Your task to perform on an android device: Go to display settings Image 0: 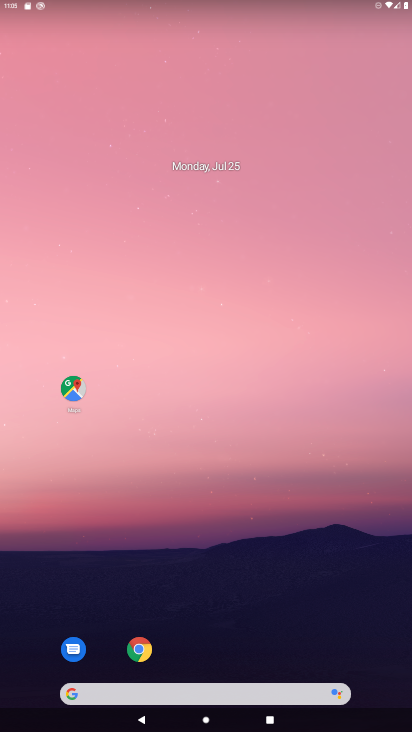
Step 0: drag from (381, 670) to (346, 182)
Your task to perform on an android device: Go to display settings Image 1: 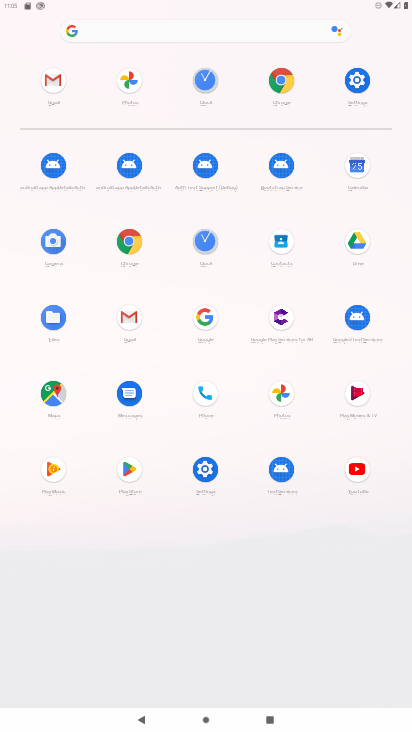
Step 1: click (206, 469)
Your task to perform on an android device: Go to display settings Image 2: 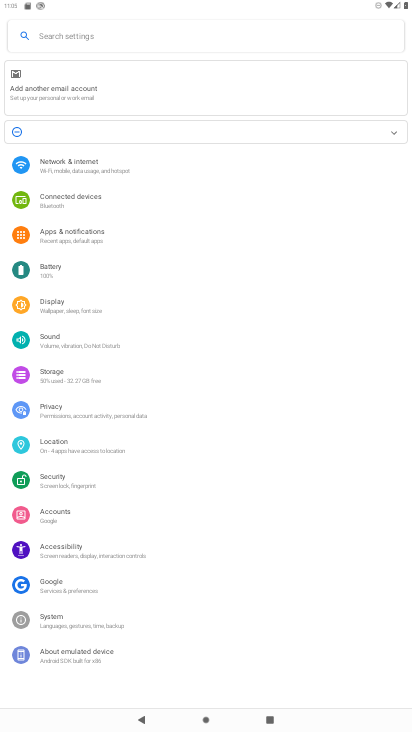
Step 2: click (51, 303)
Your task to perform on an android device: Go to display settings Image 3: 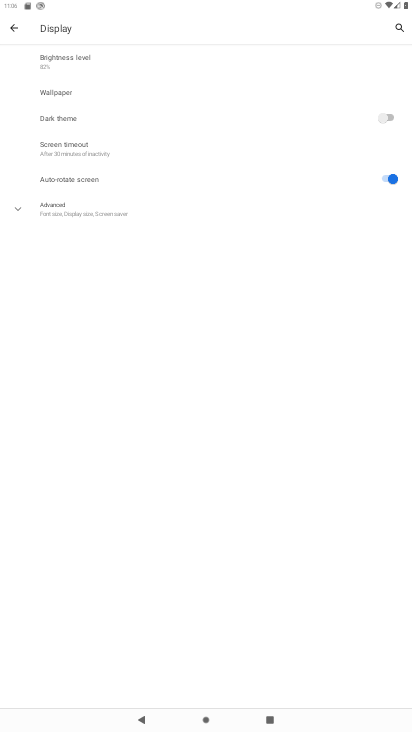
Step 3: click (15, 210)
Your task to perform on an android device: Go to display settings Image 4: 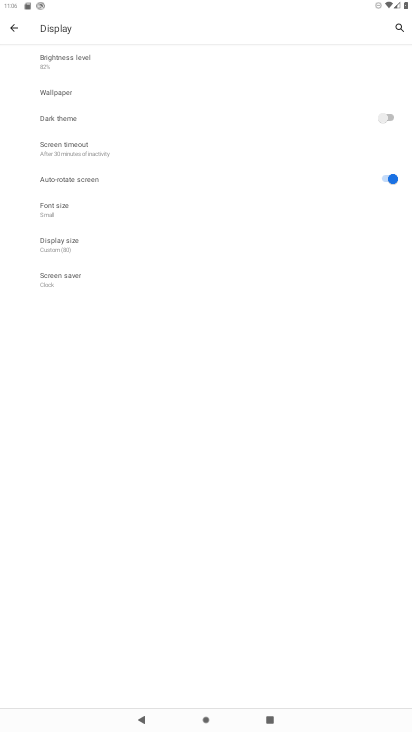
Step 4: task complete